Your task to perform on an android device: open sync settings in chrome Image 0: 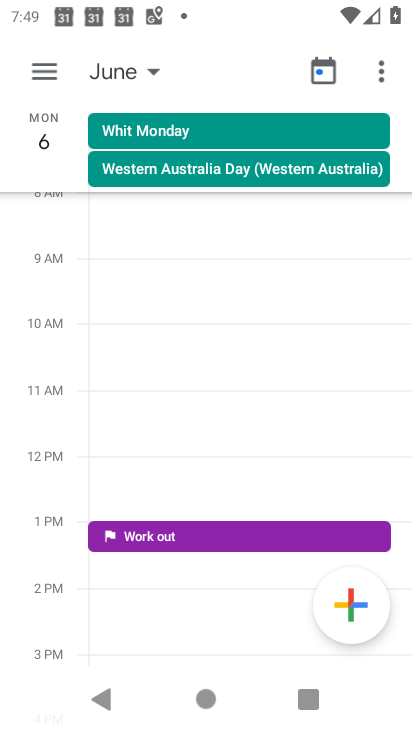
Step 0: press home button
Your task to perform on an android device: open sync settings in chrome Image 1: 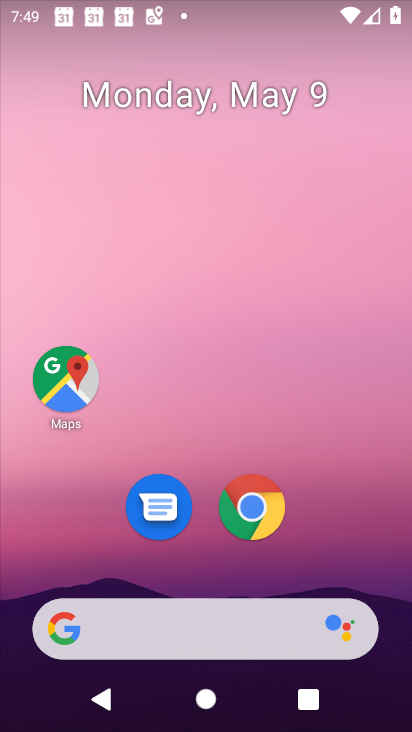
Step 1: drag from (237, 654) to (215, 96)
Your task to perform on an android device: open sync settings in chrome Image 2: 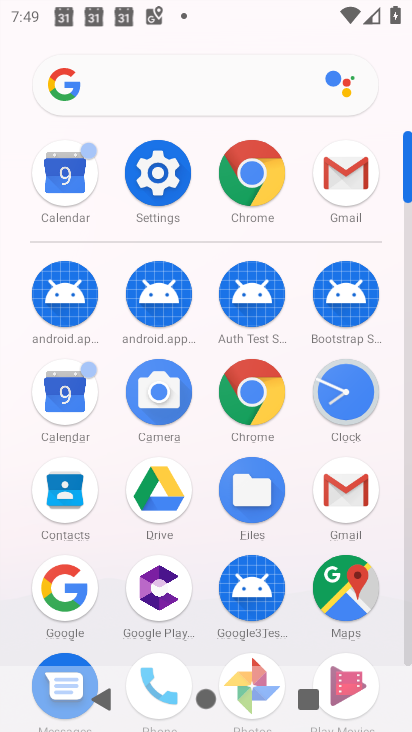
Step 2: click (246, 194)
Your task to perform on an android device: open sync settings in chrome Image 3: 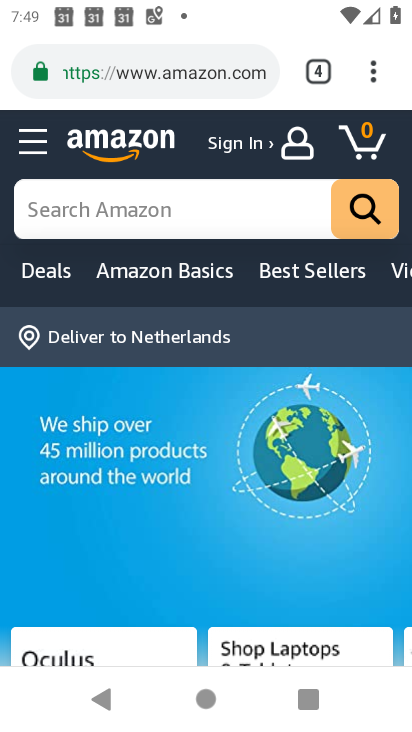
Step 3: click (367, 96)
Your task to perform on an android device: open sync settings in chrome Image 4: 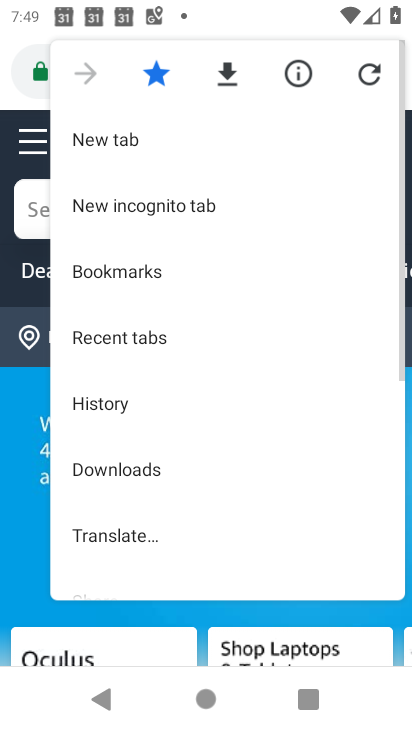
Step 4: drag from (144, 531) to (200, 338)
Your task to perform on an android device: open sync settings in chrome Image 5: 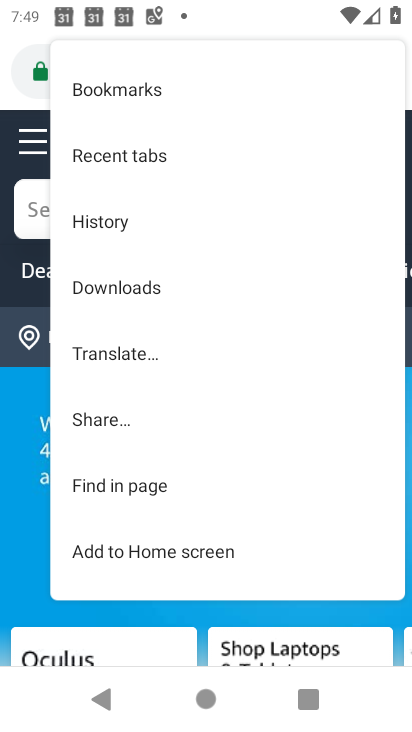
Step 5: drag from (124, 552) to (206, 403)
Your task to perform on an android device: open sync settings in chrome Image 6: 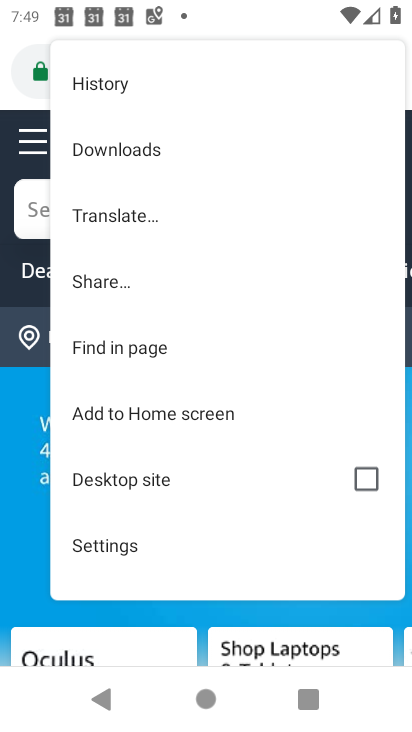
Step 6: click (134, 538)
Your task to perform on an android device: open sync settings in chrome Image 7: 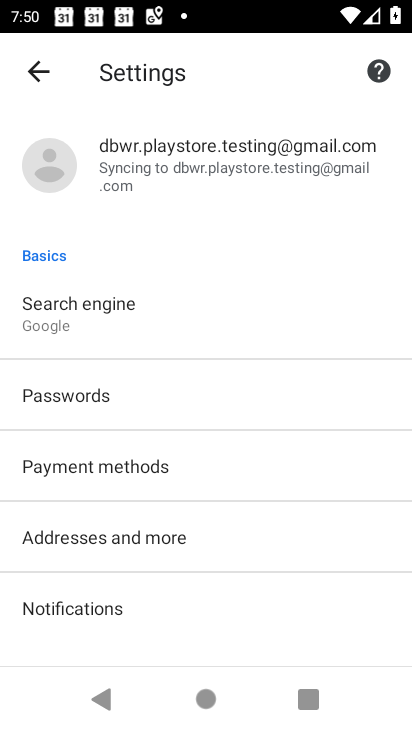
Step 7: drag from (177, 563) to (234, 276)
Your task to perform on an android device: open sync settings in chrome Image 8: 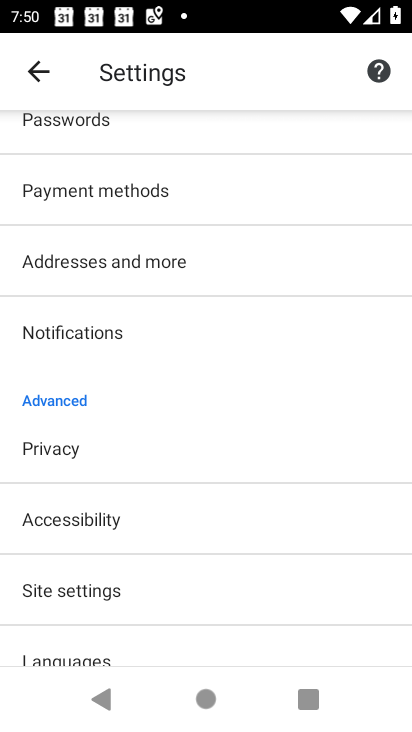
Step 8: drag from (111, 586) to (206, 464)
Your task to perform on an android device: open sync settings in chrome Image 9: 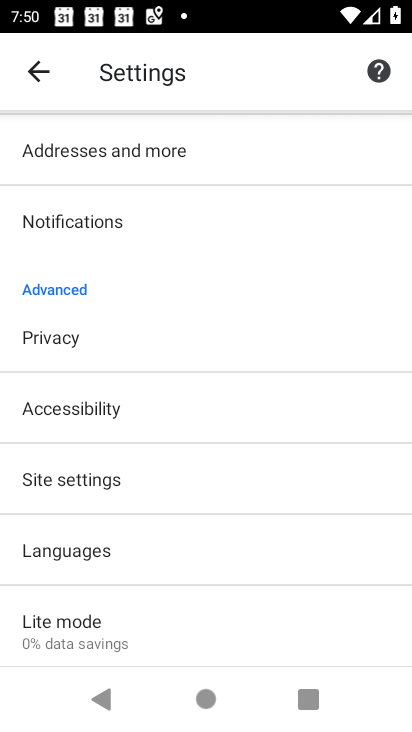
Step 9: click (98, 473)
Your task to perform on an android device: open sync settings in chrome Image 10: 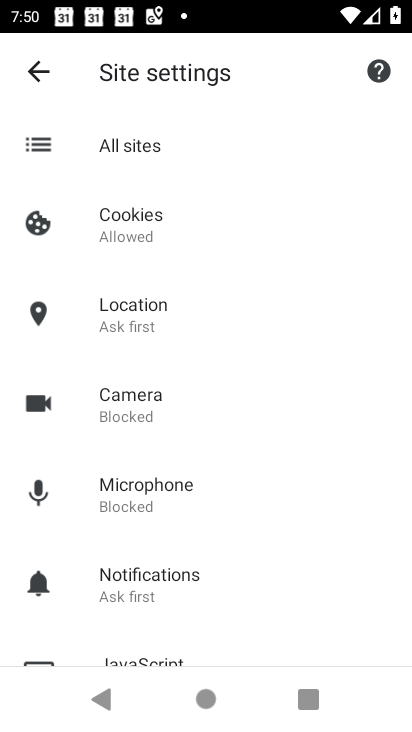
Step 10: drag from (190, 564) to (264, 368)
Your task to perform on an android device: open sync settings in chrome Image 11: 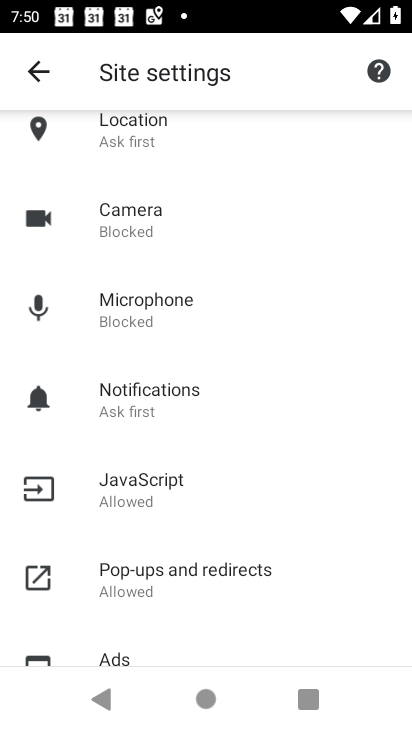
Step 11: drag from (148, 624) to (232, 496)
Your task to perform on an android device: open sync settings in chrome Image 12: 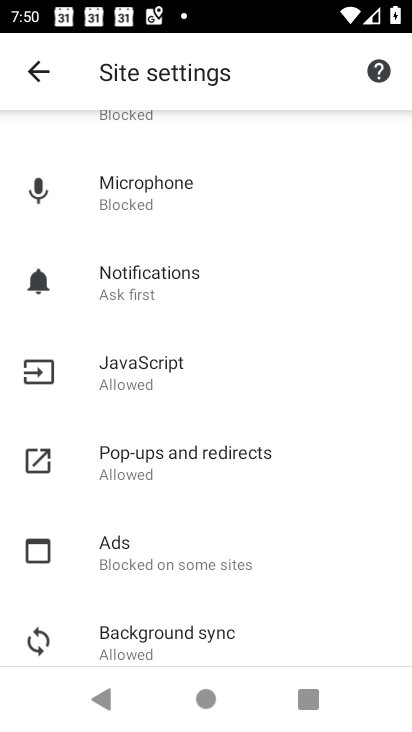
Step 12: click (165, 618)
Your task to perform on an android device: open sync settings in chrome Image 13: 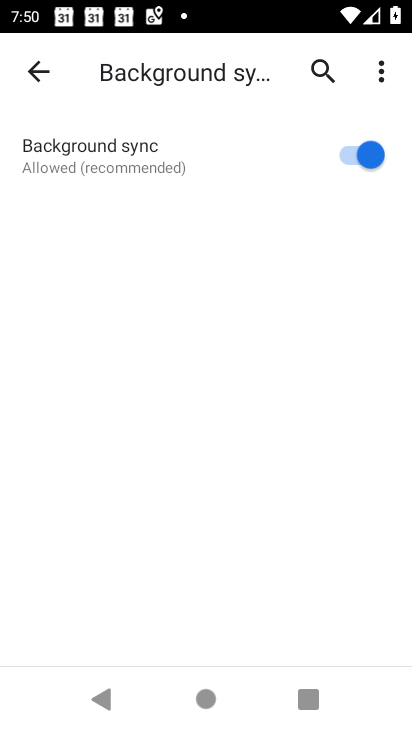
Step 13: task complete